Your task to perform on an android device: open app "Indeed Job Search" (install if not already installed) and enter user name: "quixotic@inbox.com" and password: "microphones" Image 0: 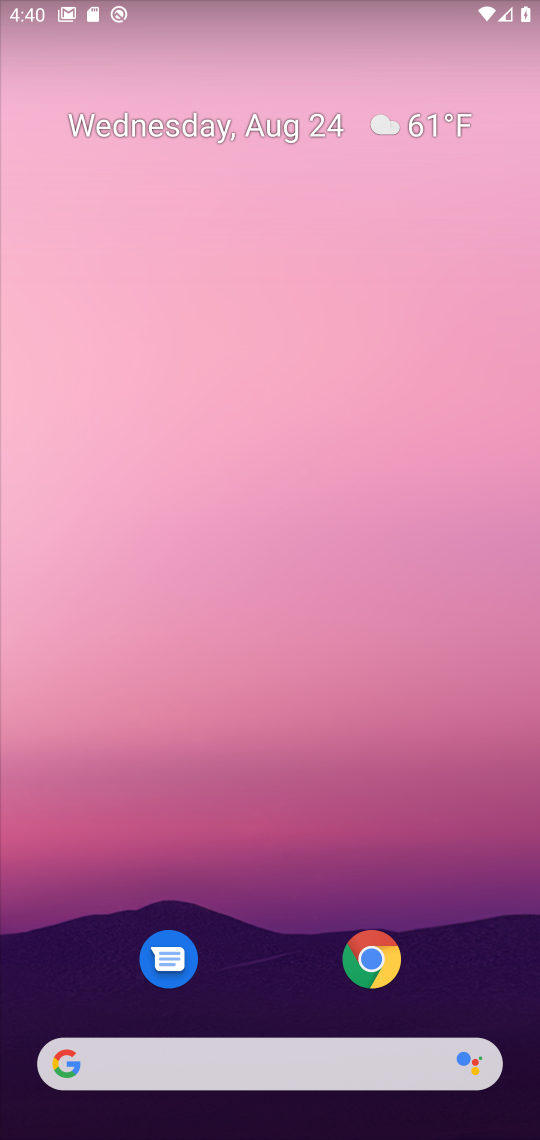
Step 0: drag from (257, 747) to (257, 231)
Your task to perform on an android device: open app "Indeed Job Search" (install if not already installed) and enter user name: "quixotic@inbox.com" and password: "microphones" Image 1: 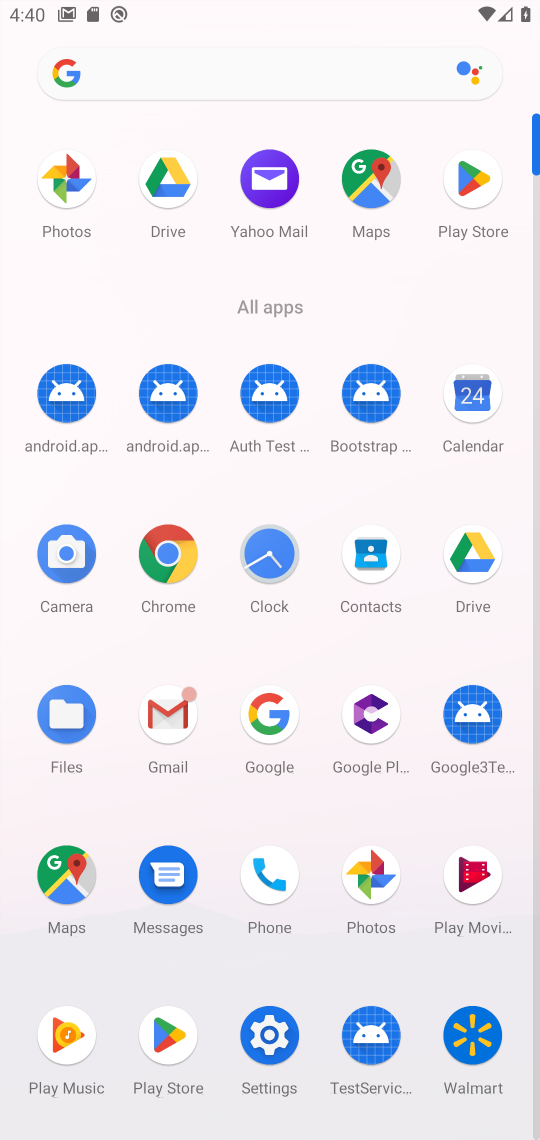
Step 1: click (471, 189)
Your task to perform on an android device: open app "Indeed Job Search" (install if not already installed) and enter user name: "quixotic@inbox.com" and password: "microphones" Image 2: 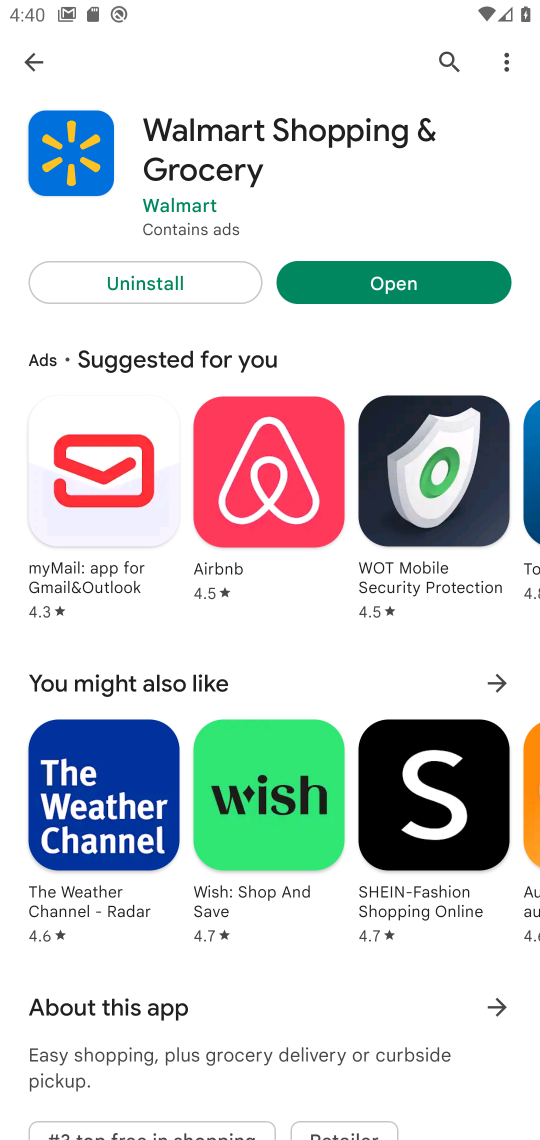
Step 2: click (447, 59)
Your task to perform on an android device: open app "Indeed Job Search" (install if not already installed) and enter user name: "quixotic@inbox.com" and password: "microphones" Image 3: 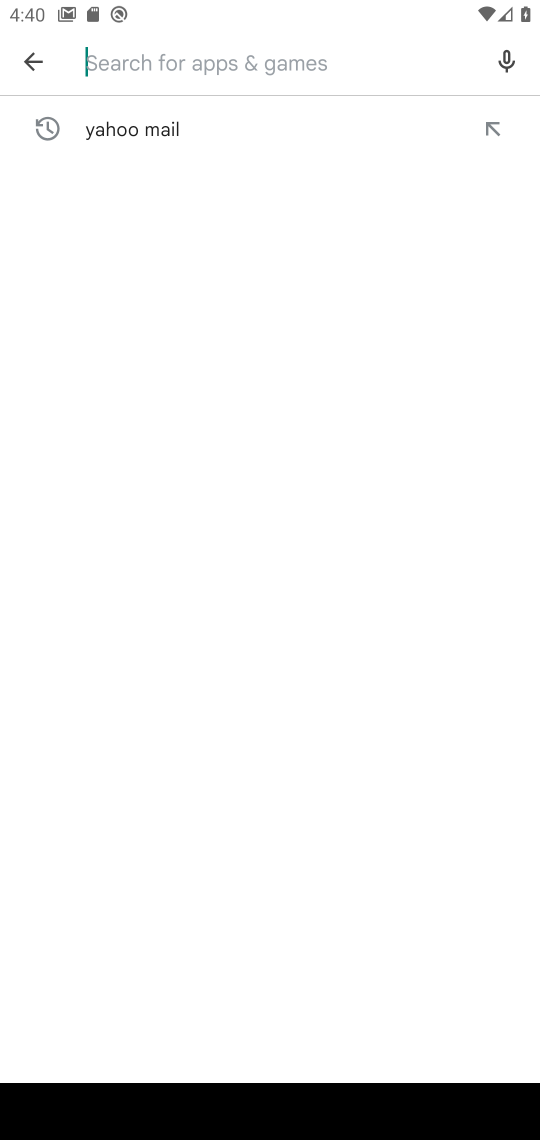
Step 3: type "Indeed Job Search"
Your task to perform on an android device: open app "Indeed Job Search" (install if not already installed) and enter user name: "quixotic@inbox.com" and password: "microphones" Image 4: 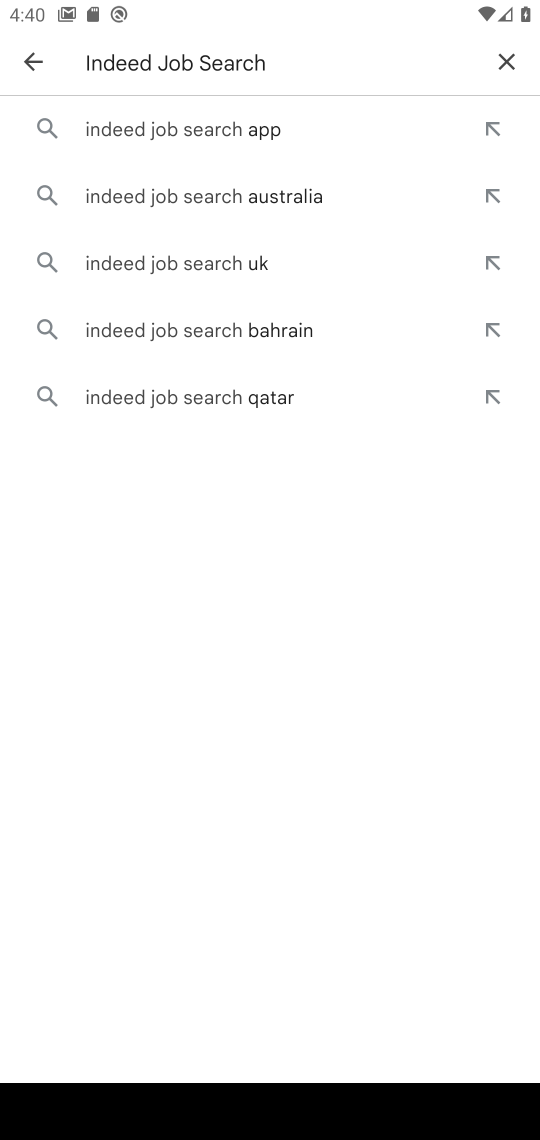
Step 4: click (103, 132)
Your task to perform on an android device: open app "Indeed Job Search" (install if not already installed) and enter user name: "quixotic@inbox.com" and password: "microphones" Image 5: 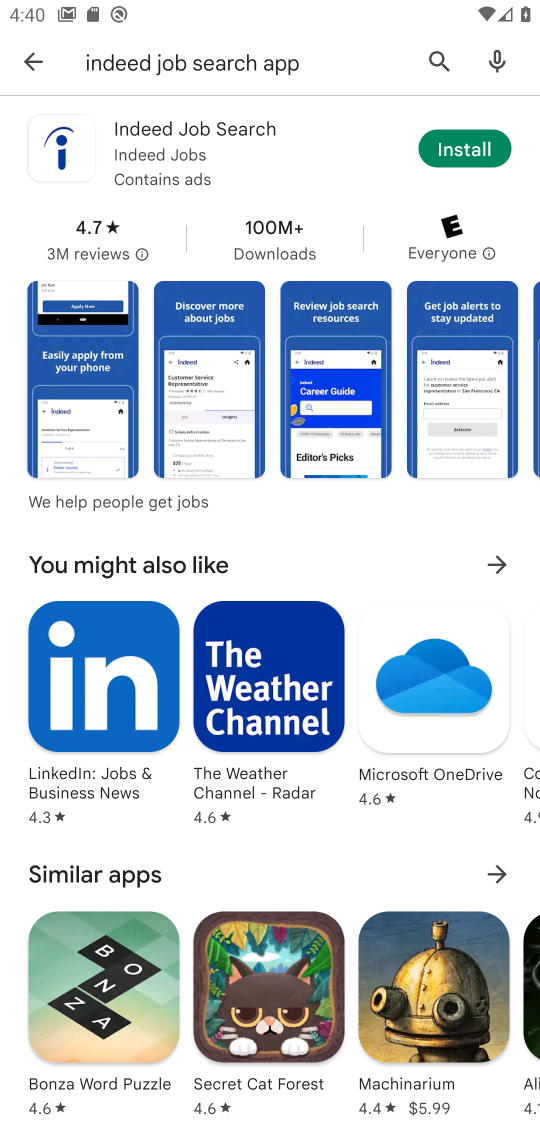
Step 5: click (469, 150)
Your task to perform on an android device: open app "Indeed Job Search" (install if not already installed) and enter user name: "quixotic@inbox.com" and password: "microphones" Image 6: 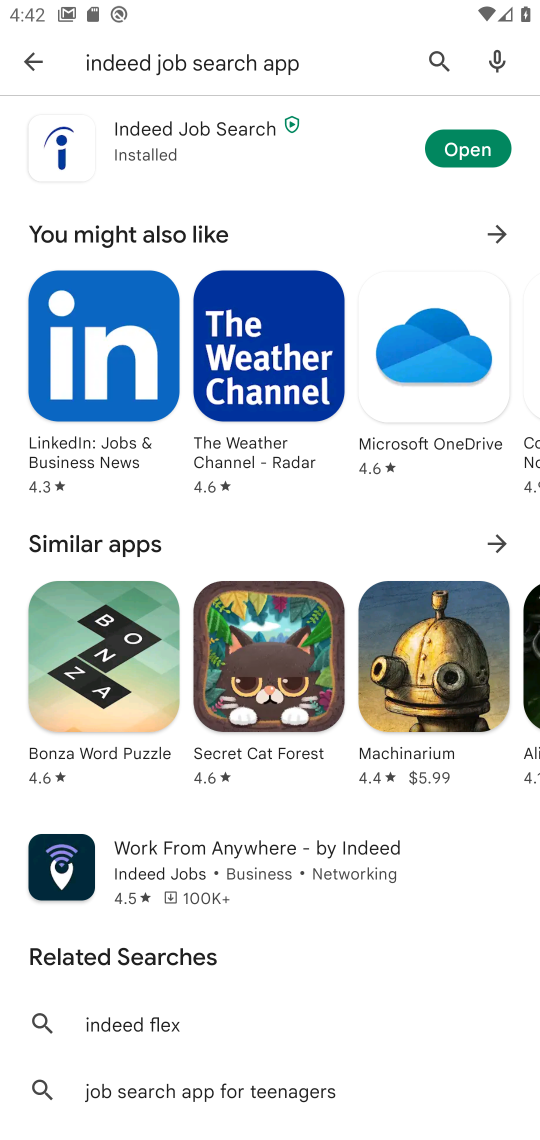
Step 6: click (453, 153)
Your task to perform on an android device: open app "Indeed Job Search" (install if not already installed) and enter user name: "quixotic@inbox.com" and password: "microphones" Image 7: 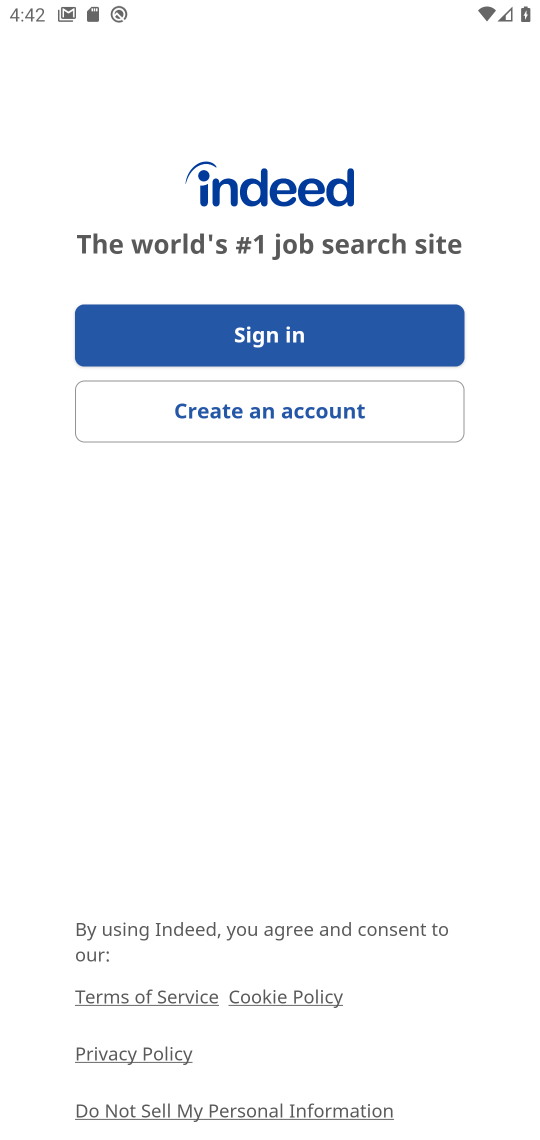
Step 7: click (254, 329)
Your task to perform on an android device: open app "Indeed Job Search" (install if not already installed) and enter user name: "quixotic@inbox.com" and password: "microphones" Image 8: 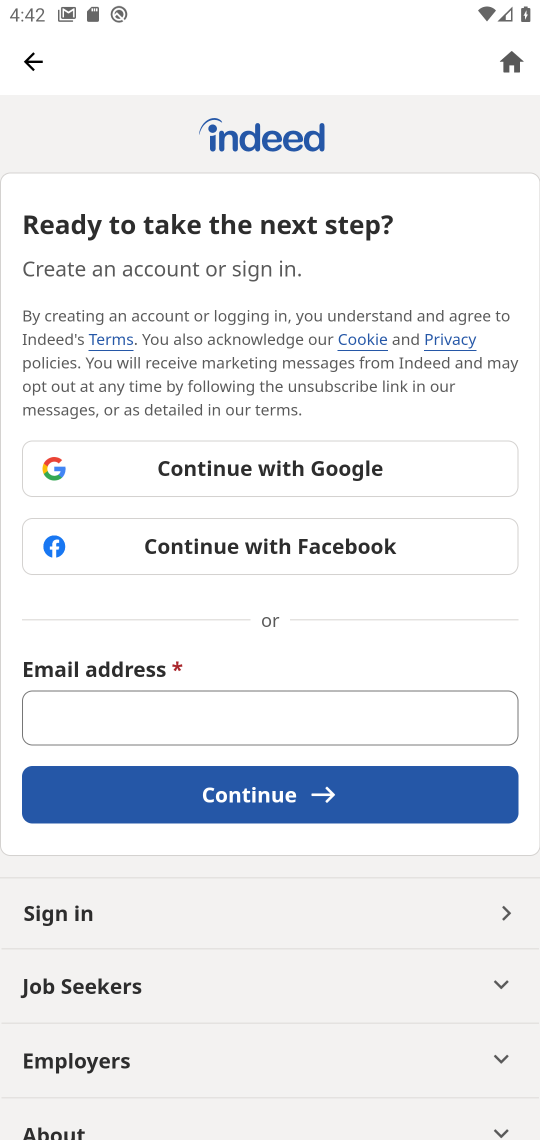
Step 8: click (168, 716)
Your task to perform on an android device: open app "Indeed Job Search" (install if not already installed) and enter user name: "quixotic@inbox.com" and password: "microphones" Image 9: 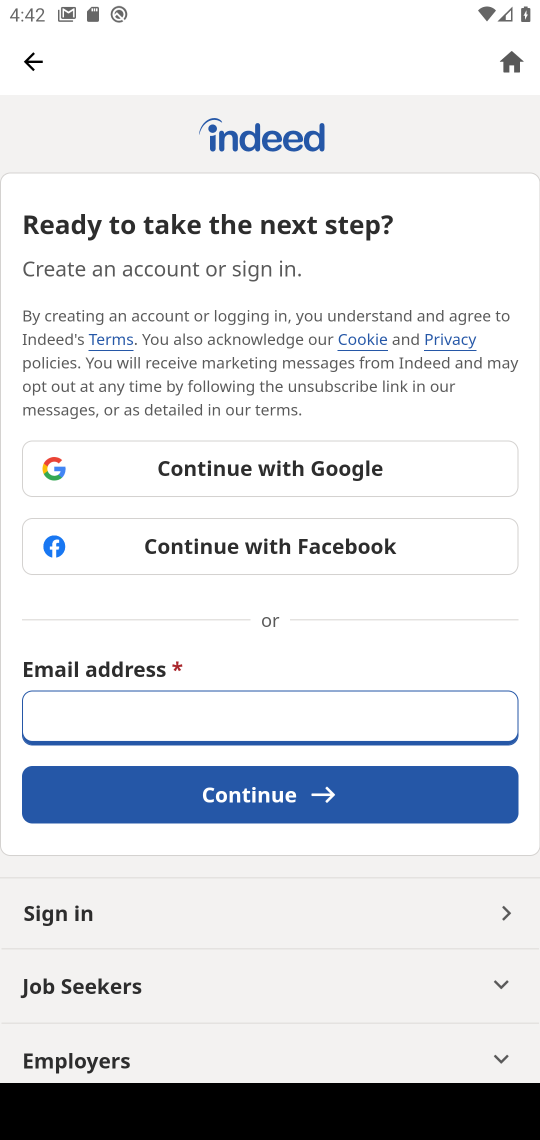
Step 9: type "quixotic@inbox.com"
Your task to perform on an android device: open app "Indeed Job Search" (install if not already installed) and enter user name: "quixotic@inbox.com" and password: "microphones" Image 10: 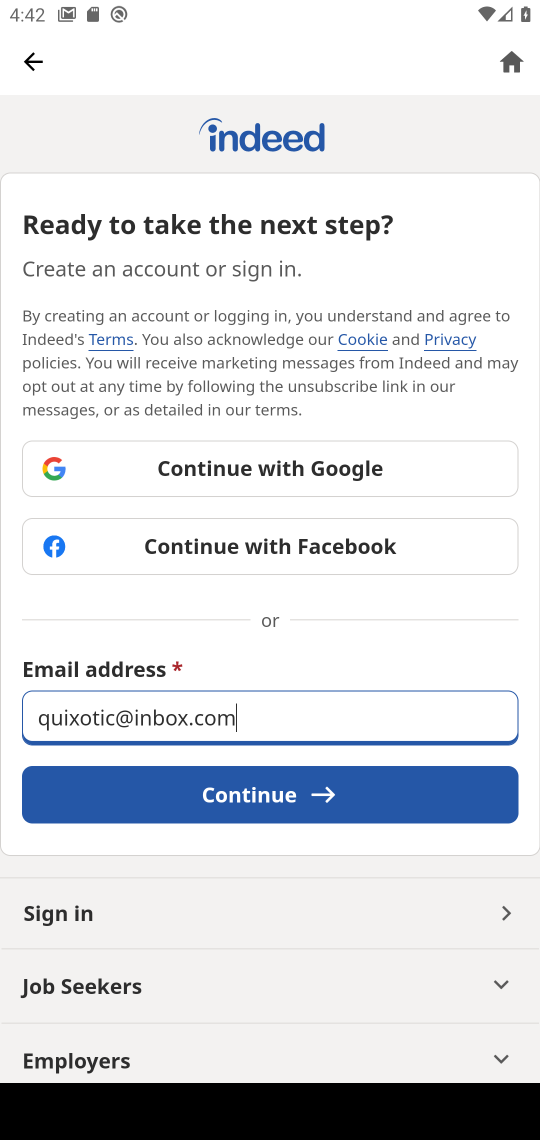
Step 10: click (249, 811)
Your task to perform on an android device: open app "Indeed Job Search" (install if not already installed) and enter user name: "quixotic@inbox.com" and password: "microphones" Image 11: 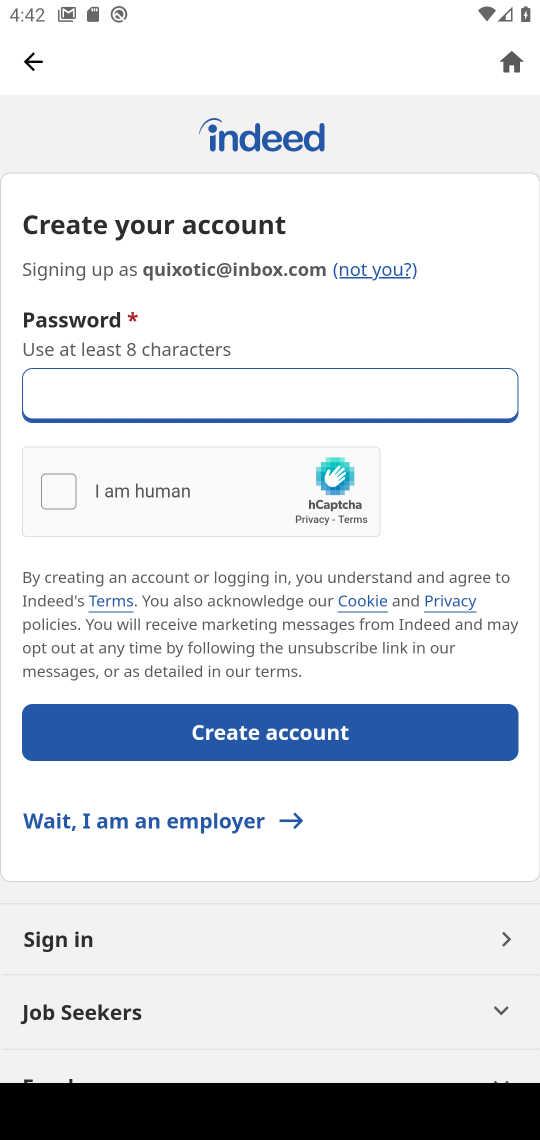
Step 11: type "microphones"
Your task to perform on an android device: open app "Indeed Job Search" (install if not already installed) and enter user name: "quixotic@inbox.com" and password: "microphones" Image 12: 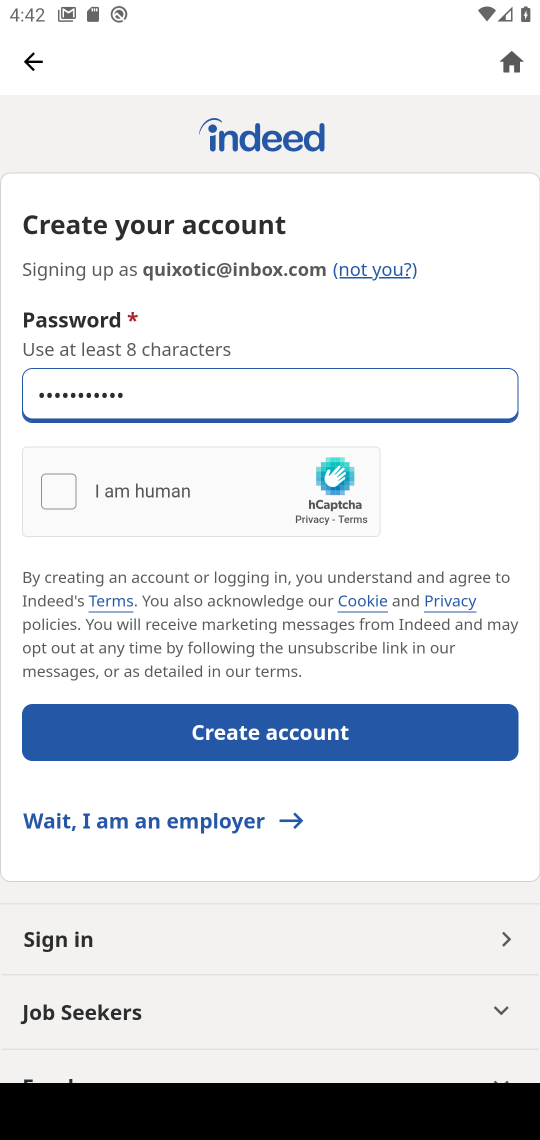
Step 12: click (61, 492)
Your task to perform on an android device: open app "Indeed Job Search" (install if not already installed) and enter user name: "quixotic@inbox.com" and password: "microphones" Image 13: 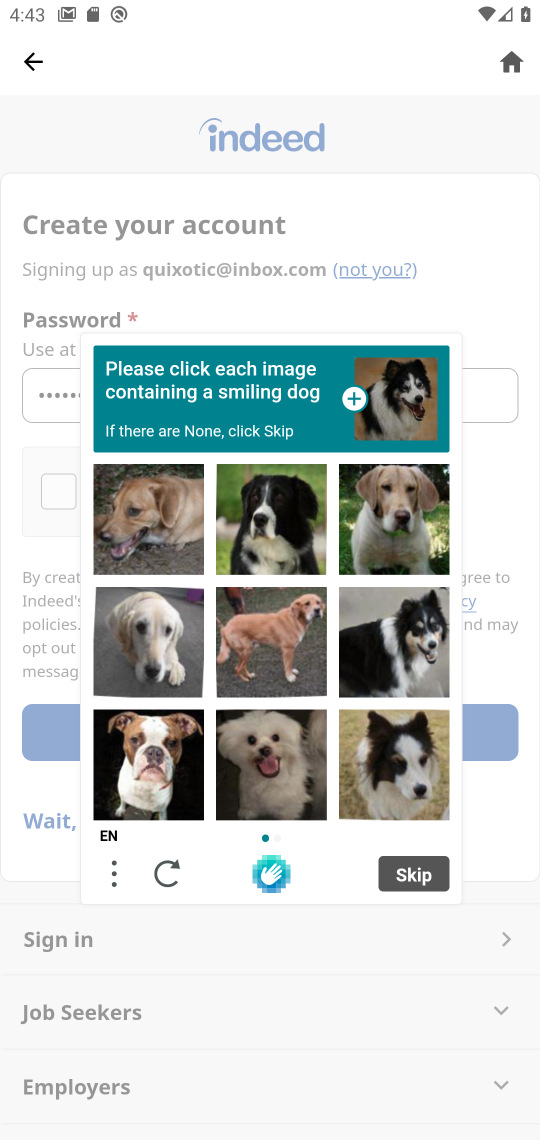
Step 13: click (254, 540)
Your task to perform on an android device: open app "Indeed Job Search" (install if not already installed) and enter user name: "quixotic@inbox.com" and password: "microphones" Image 14: 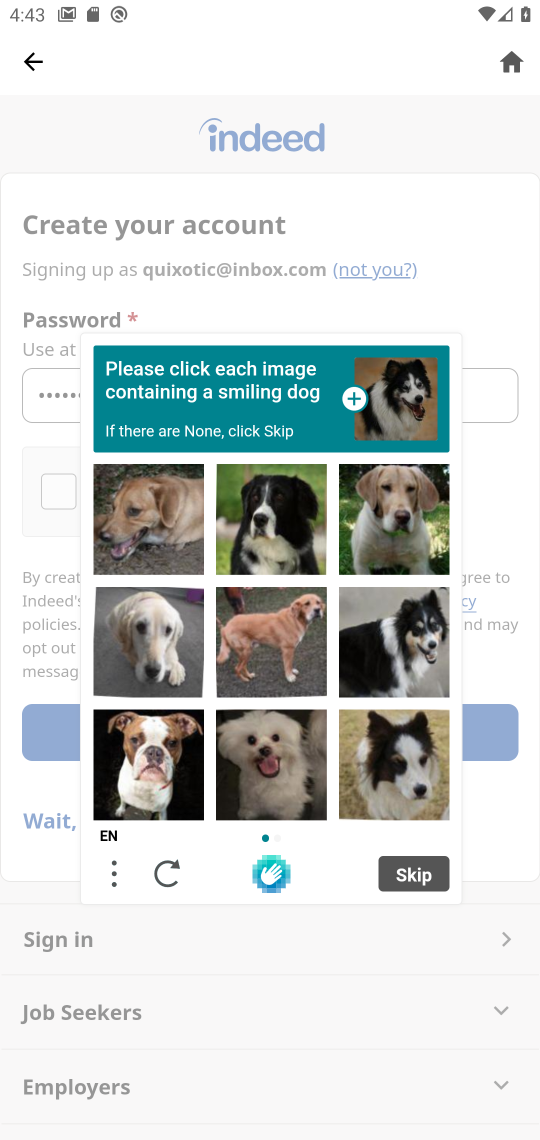
Step 14: click (143, 521)
Your task to perform on an android device: open app "Indeed Job Search" (install if not already installed) and enter user name: "quixotic@inbox.com" and password: "microphones" Image 15: 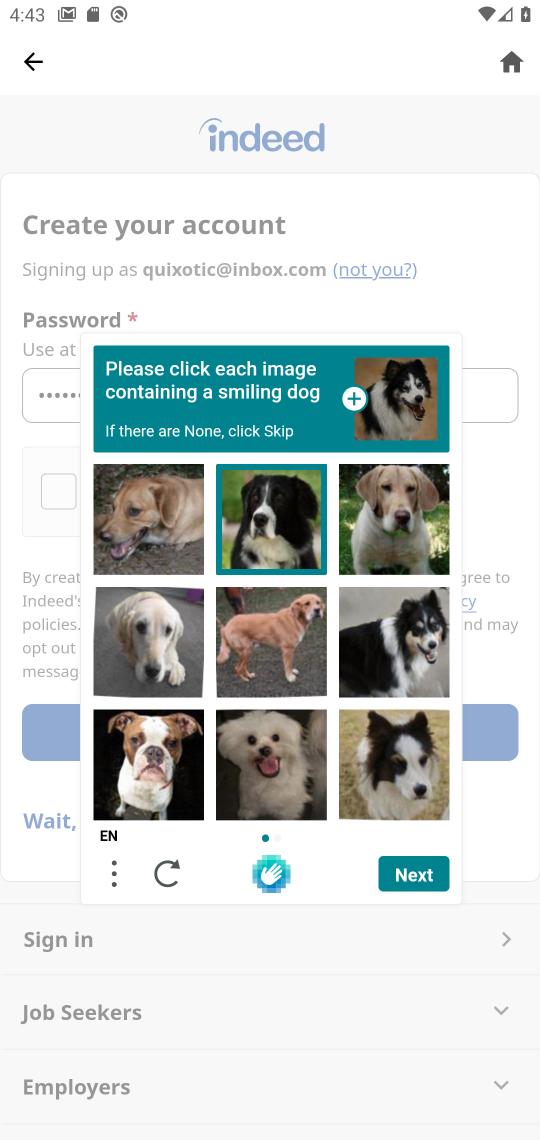
Step 15: click (123, 677)
Your task to perform on an android device: open app "Indeed Job Search" (install if not already installed) and enter user name: "quixotic@inbox.com" and password: "microphones" Image 16: 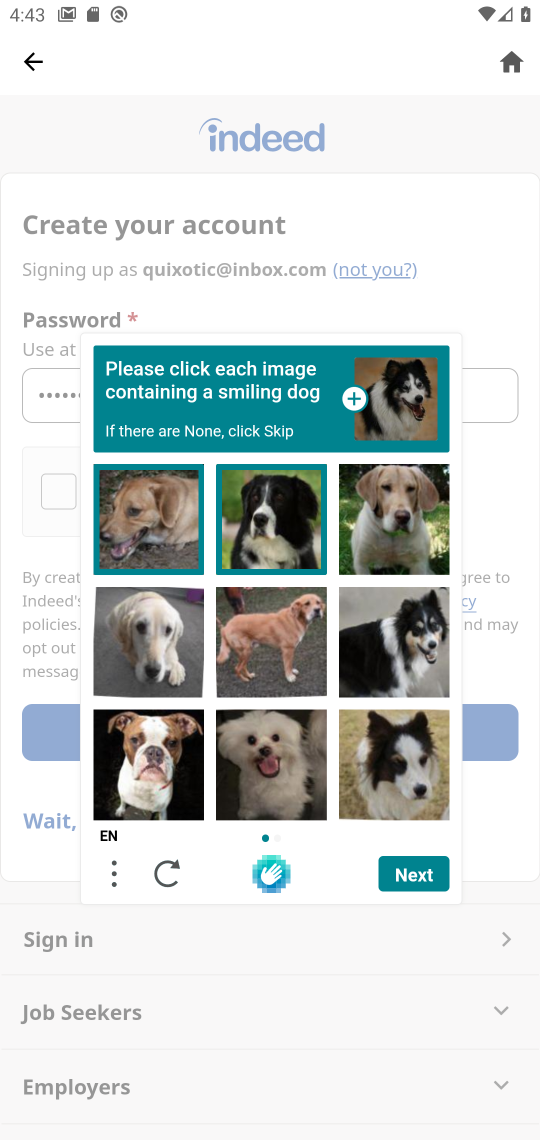
Step 16: click (122, 779)
Your task to perform on an android device: open app "Indeed Job Search" (install if not already installed) and enter user name: "quixotic@inbox.com" and password: "microphones" Image 17: 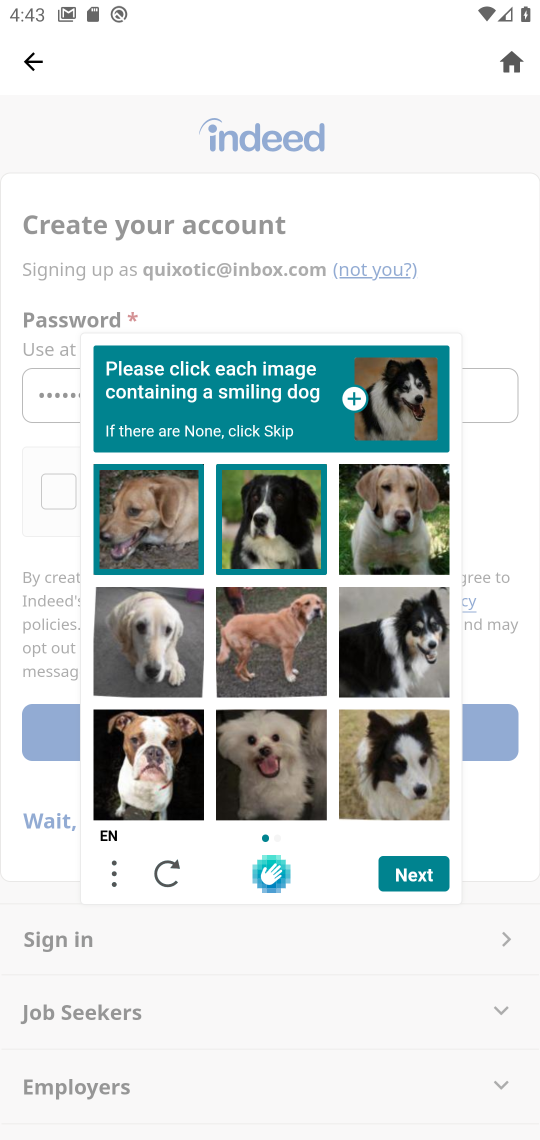
Step 17: click (274, 784)
Your task to perform on an android device: open app "Indeed Job Search" (install if not already installed) and enter user name: "quixotic@inbox.com" and password: "microphones" Image 18: 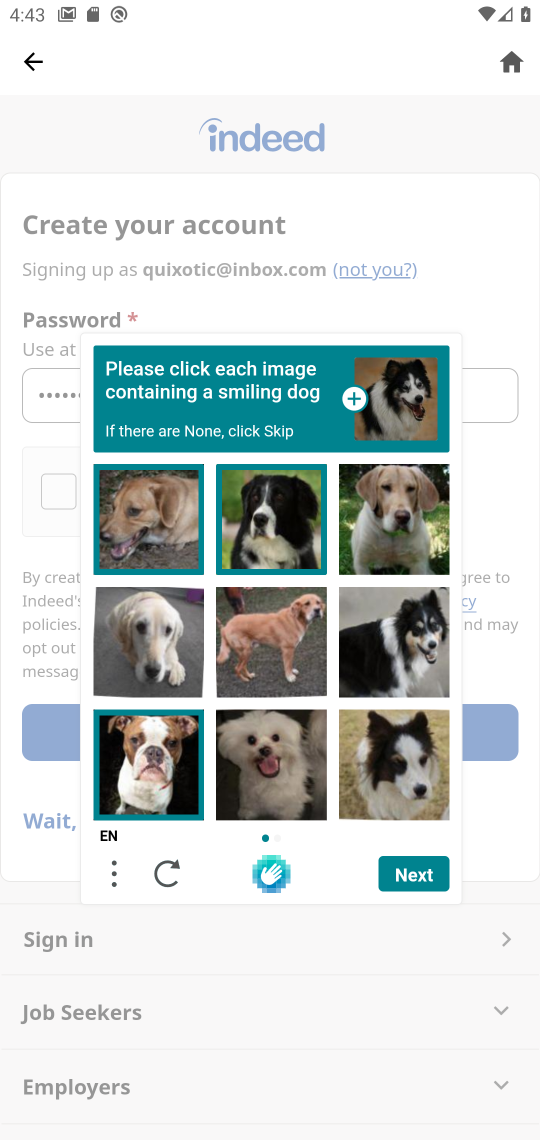
Step 18: click (396, 783)
Your task to perform on an android device: open app "Indeed Job Search" (install if not already installed) and enter user name: "quixotic@inbox.com" and password: "microphones" Image 19: 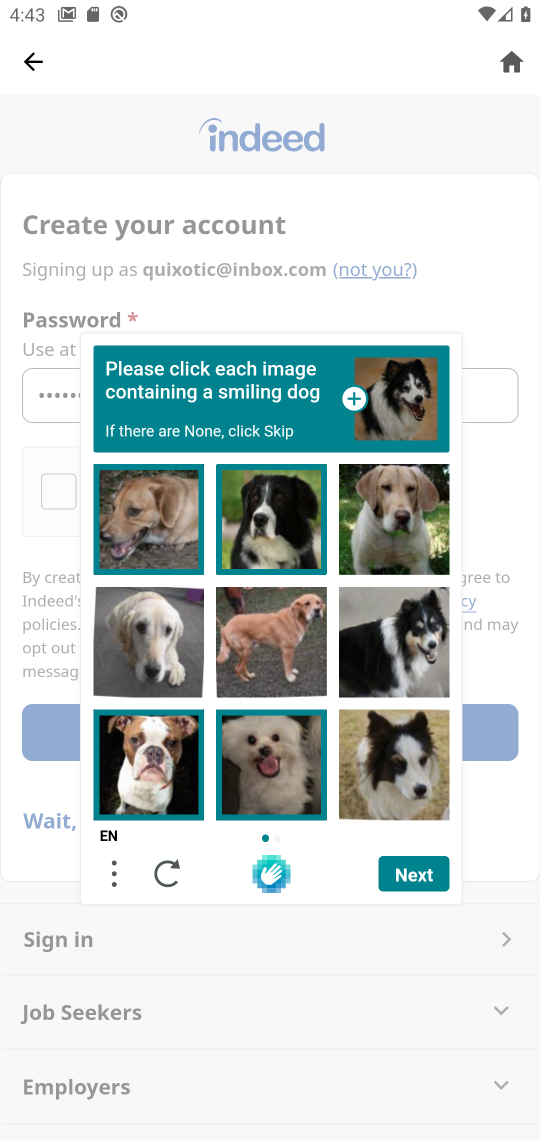
Step 19: click (413, 633)
Your task to perform on an android device: open app "Indeed Job Search" (install if not already installed) and enter user name: "quixotic@inbox.com" and password: "microphones" Image 20: 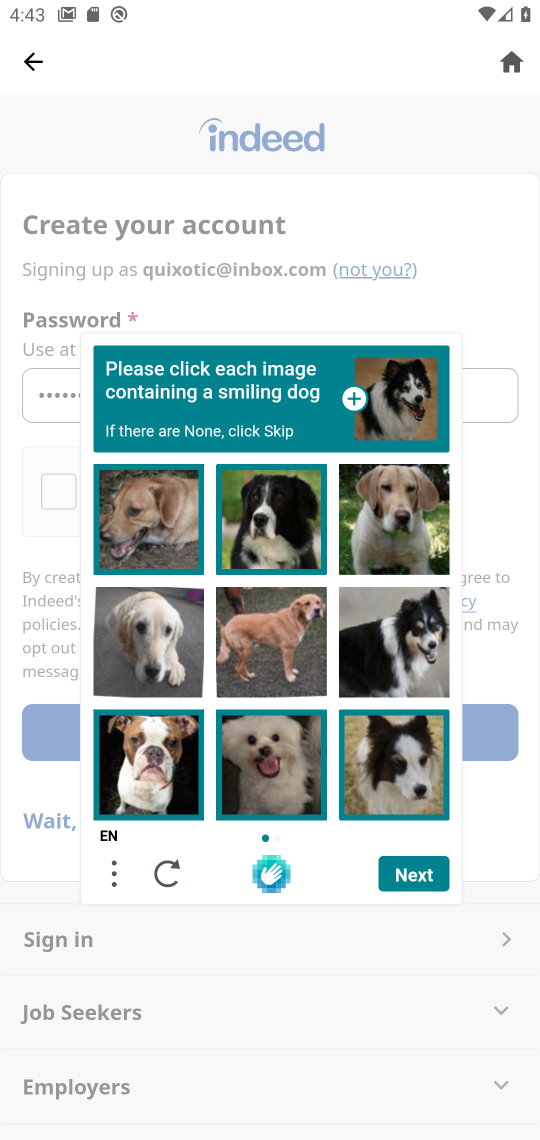
Step 20: click (395, 516)
Your task to perform on an android device: open app "Indeed Job Search" (install if not already installed) and enter user name: "quixotic@inbox.com" and password: "microphones" Image 21: 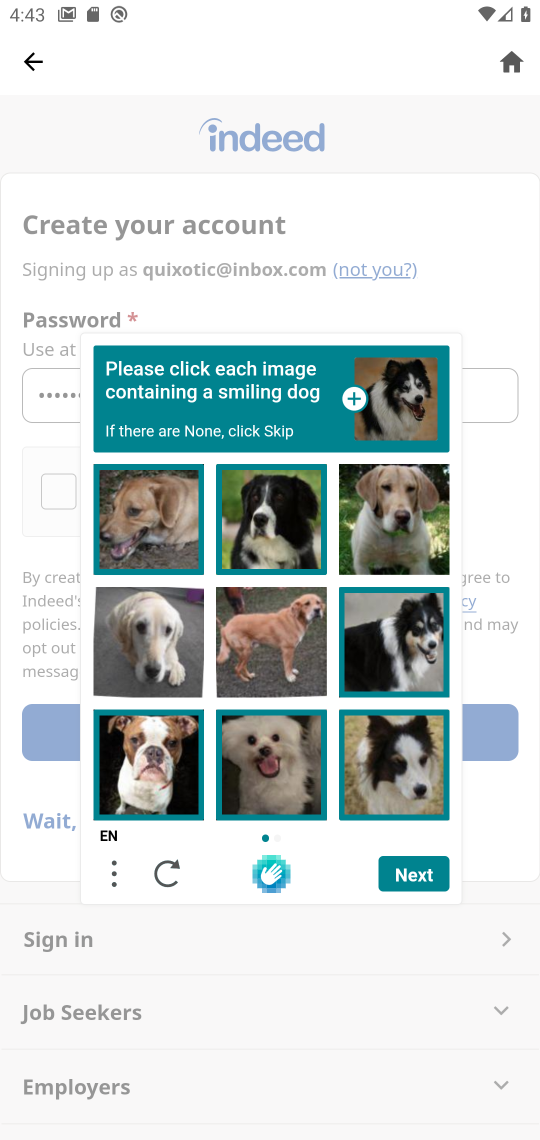
Step 21: task complete